Your task to perform on an android device: Search for flights from Mexico city to Boston Image 0: 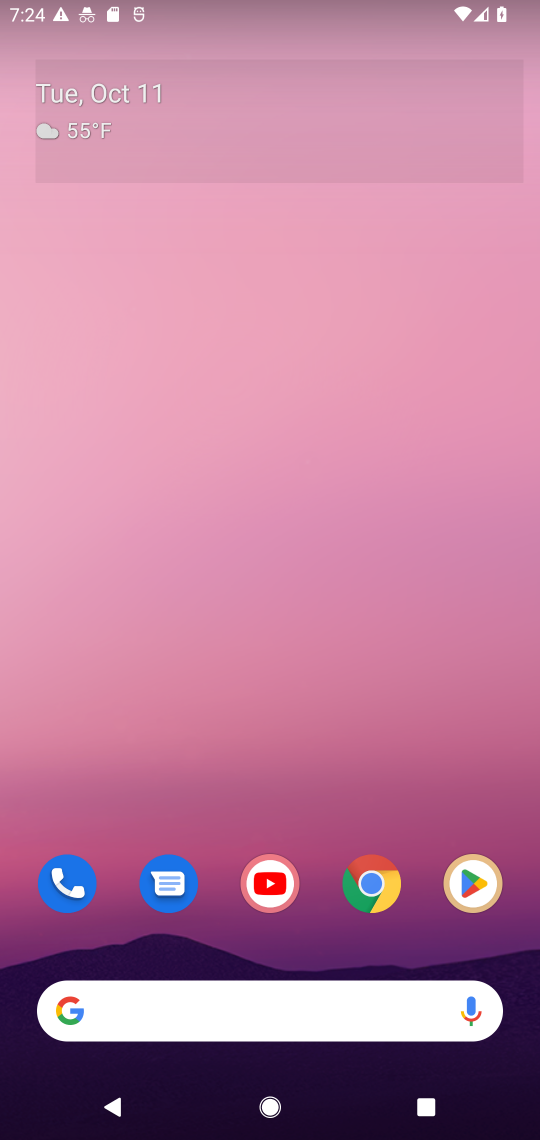
Step 0: drag from (314, 948) to (253, 19)
Your task to perform on an android device: Search for flights from Mexico city to Boston Image 1: 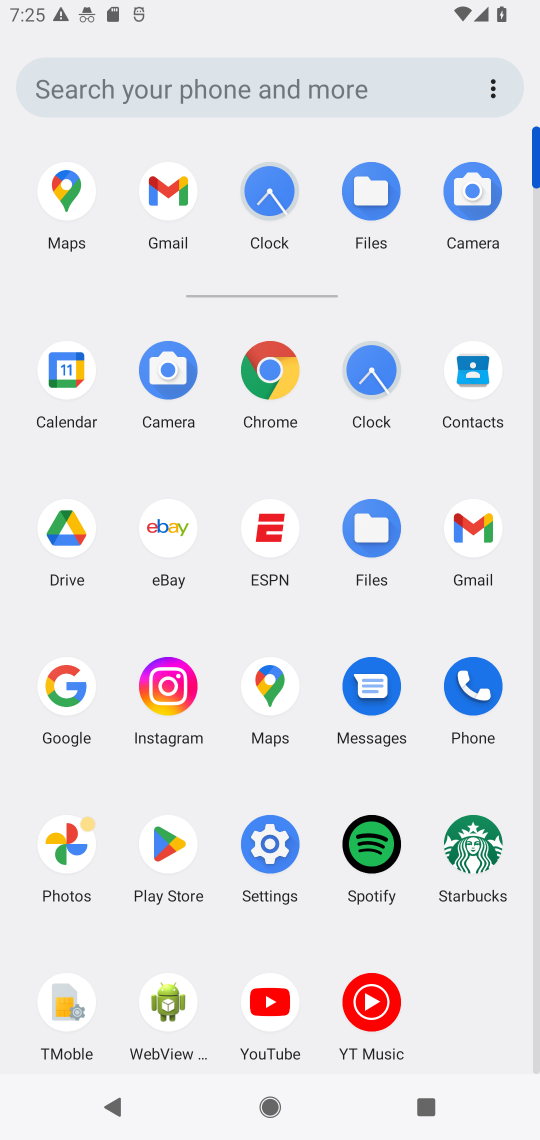
Step 1: click (265, 373)
Your task to perform on an android device: Search for flights from Mexico city to Boston Image 2: 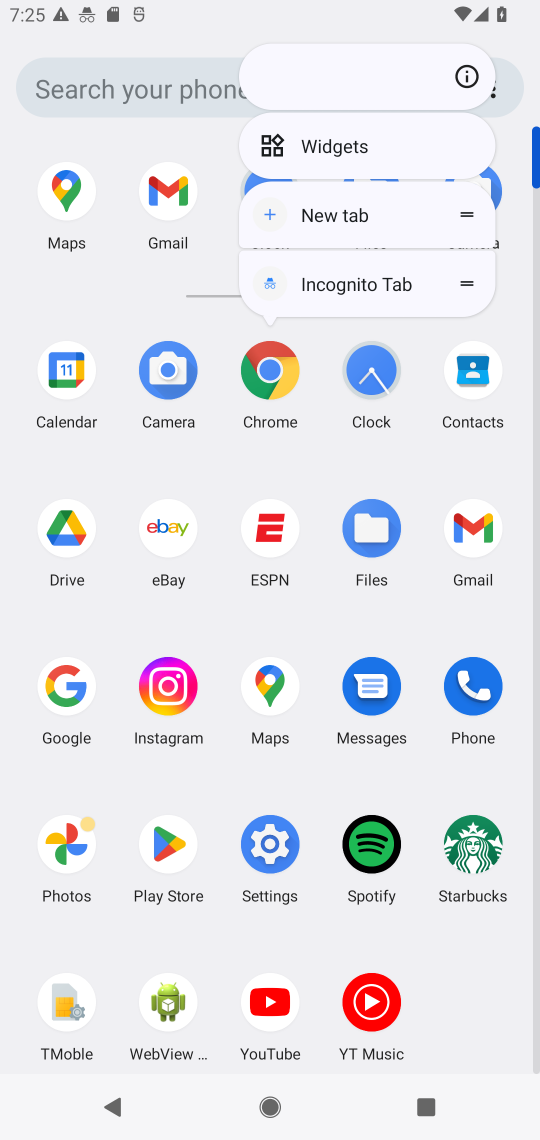
Step 2: click (272, 378)
Your task to perform on an android device: Search for flights from Mexico city to Boston Image 3: 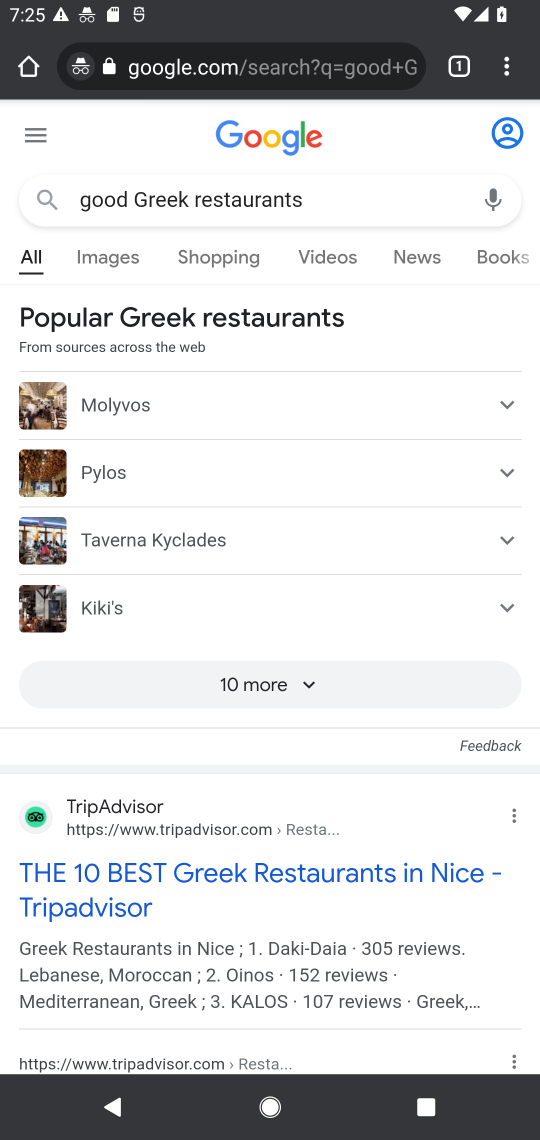
Step 3: click (253, 76)
Your task to perform on an android device: Search for flights from Mexico city to Boston Image 4: 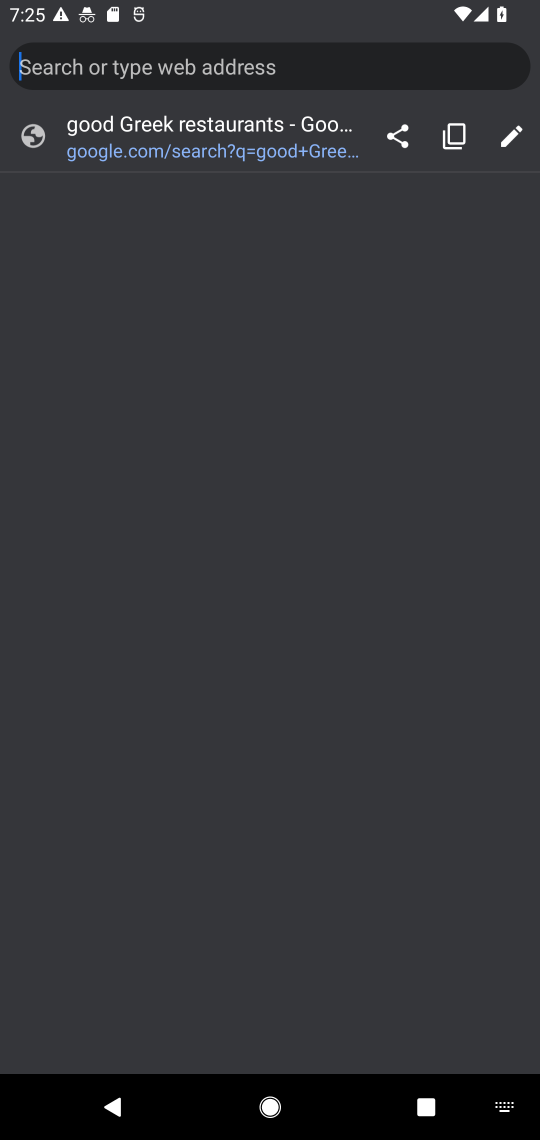
Step 4: type "flights from Mexico city to Boston"
Your task to perform on an android device: Search for flights from Mexico city to Boston Image 5: 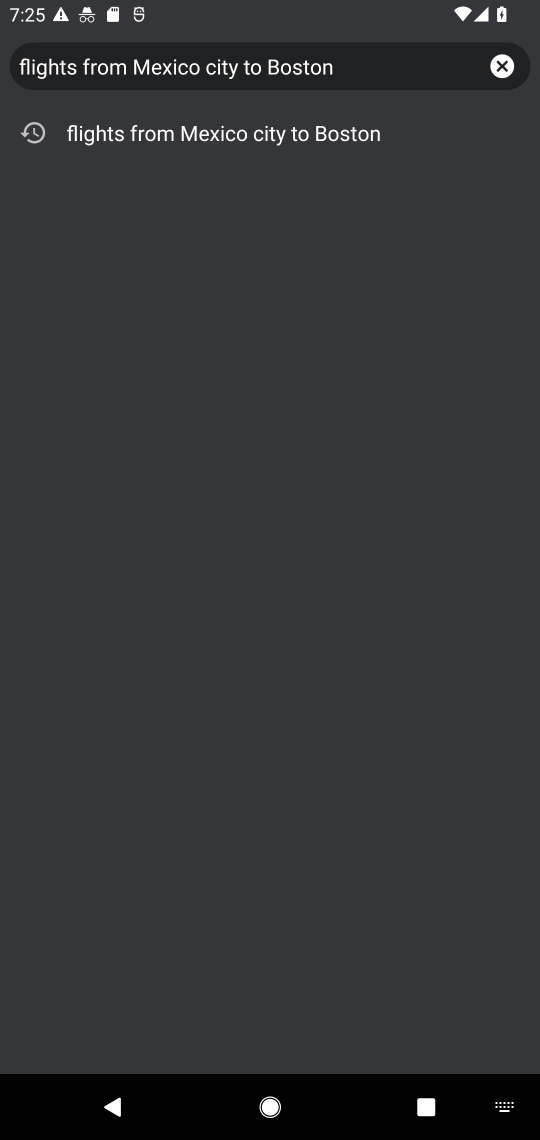
Step 5: press enter
Your task to perform on an android device: Search for flights from Mexico city to Boston Image 6: 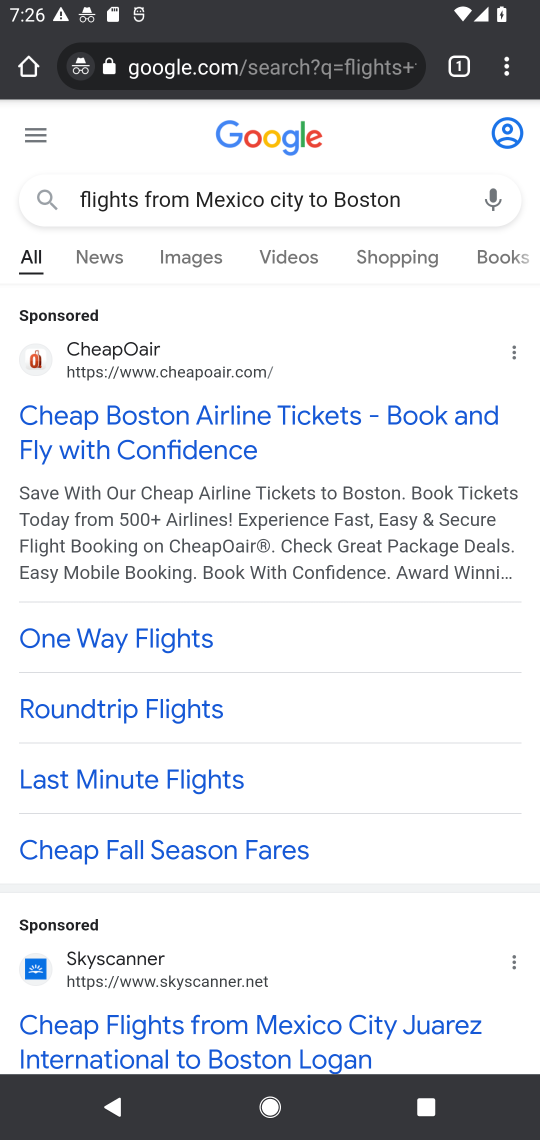
Step 6: task complete